Your task to perform on an android device: check google app version Image 0: 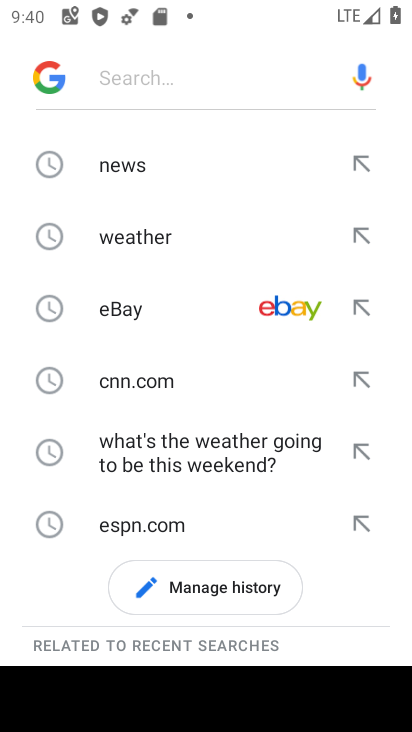
Step 0: press home button
Your task to perform on an android device: check google app version Image 1: 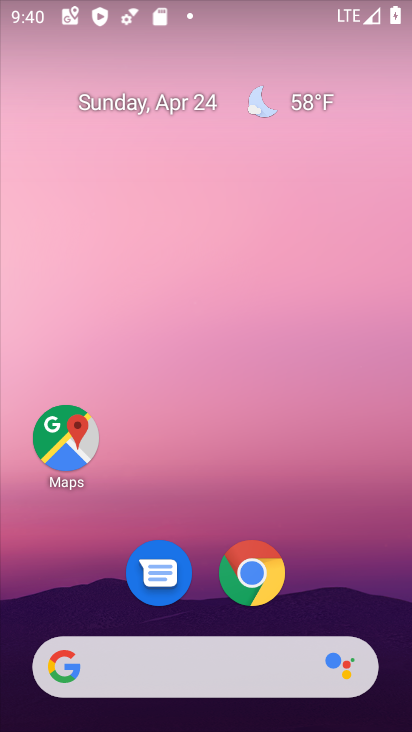
Step 1: drag from (321, 592) to (359, 143)
Your task to perform on an android device: check google app version Image 2: 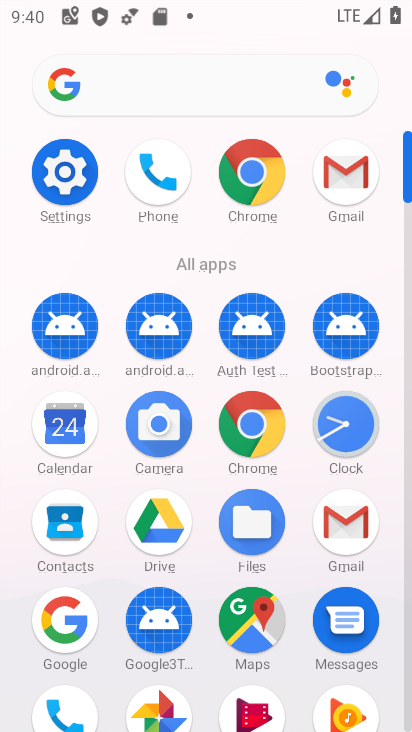
Step 2: click (49, 620)
Your task to perform on an android device: check google app version Image 3: 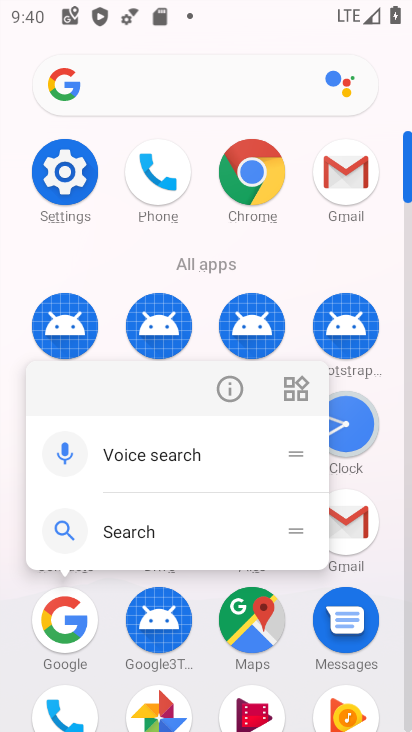
Step 3: click (228, 387)
Your task to perform on an android device: check google app version Image 4: 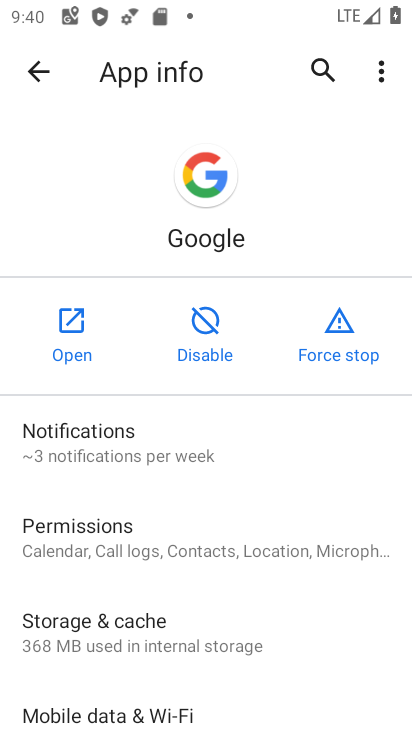
Step 4: drag from (165, 608) to (263, 48)
Your task to perform on an android device: check google app version Image 5: 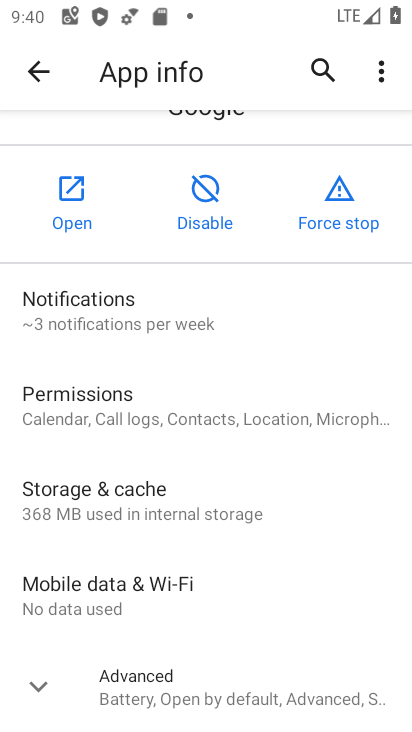
Step 5: drag from (243, 565) to (307, 133)
Your task to perform on an android device: check google app version Image 6: 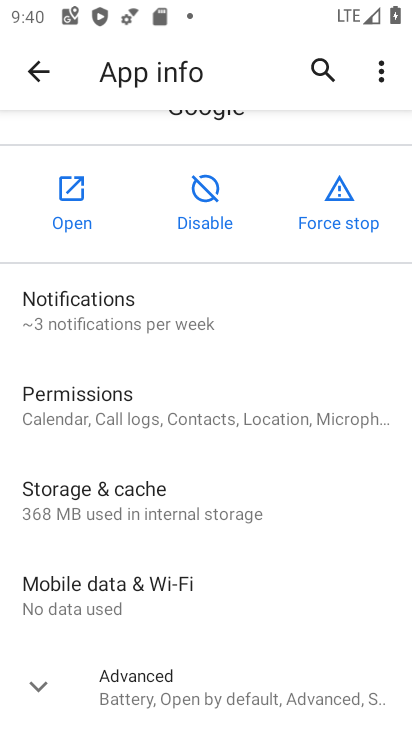
Step 6: click (155, 683)
Your task to perform on an android device: check google app version Image 7: 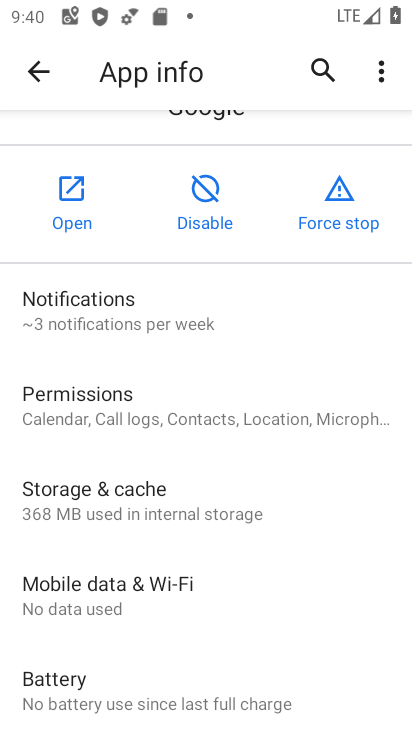
Step 7: drag from (257, 629) to (350, 58)
Your task to perform on an android device: check google app version Image 8: 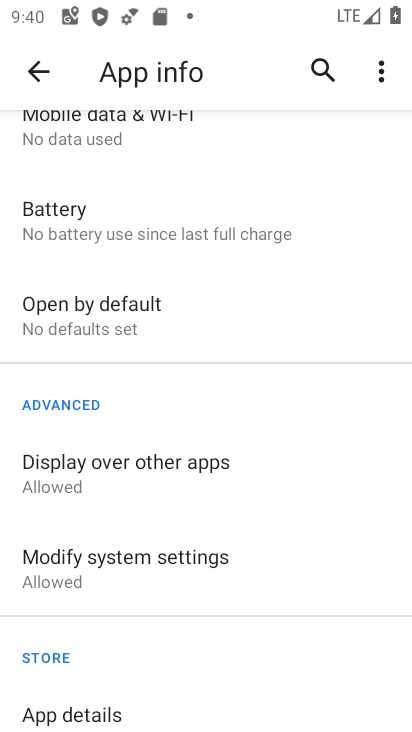
Step 8: drag from (252, 573) to (245, 146)
Your task to perform on an android device: check google app version Image 9: 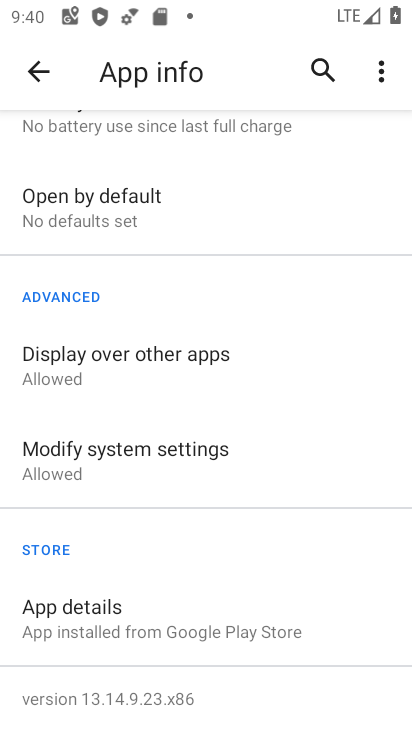
Step 9: click (108, 712)
Your task to perform on an android device: check google app version Image 10: 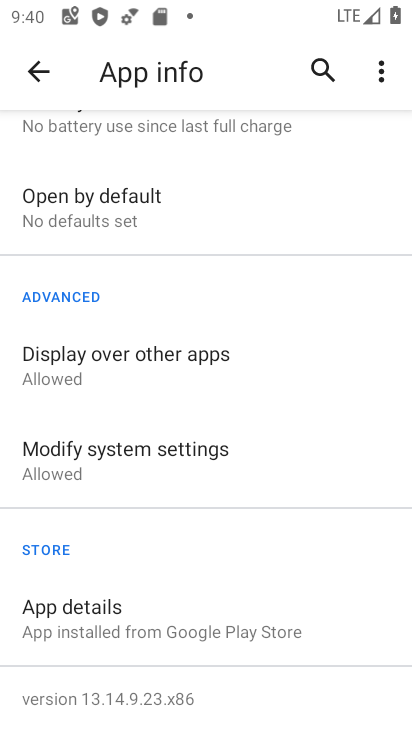
Step 10: task complete